Your task to perform on an android device: turn off translation in the chrome app Image 0: 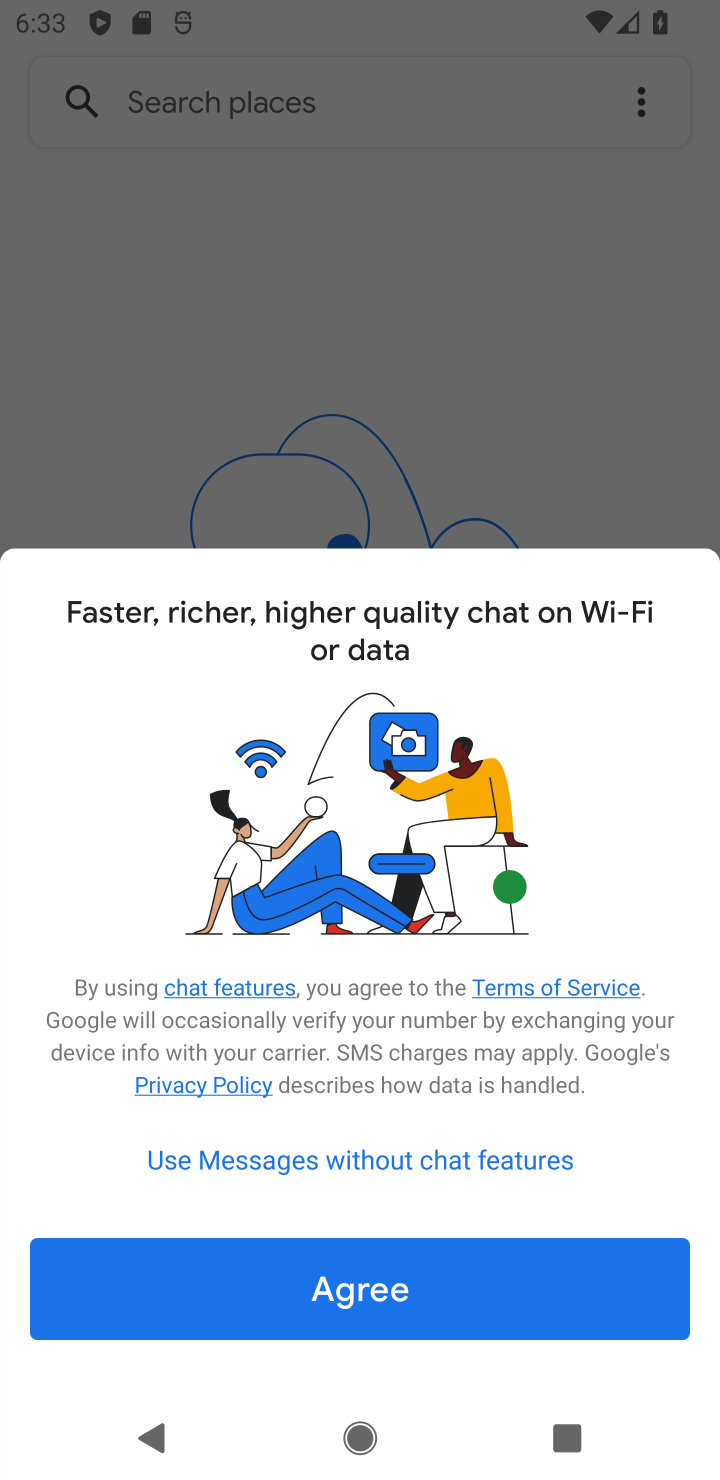
Step 0: press back button
Your task to perform on an android device: turn off translation in the chrome app Image 1: 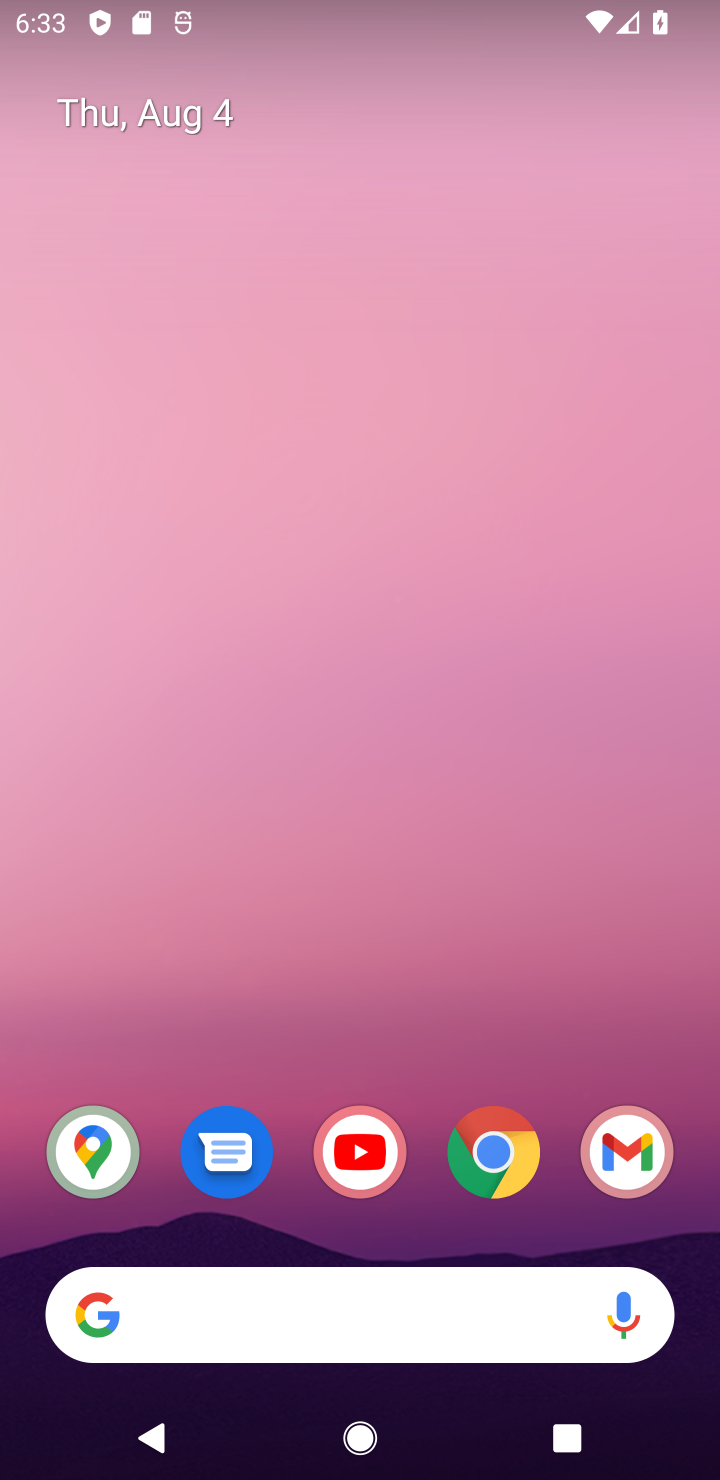
Step 1: click (478, 1138)
Your task to perform on an android device: turn off translation in the chrome app Image 2: 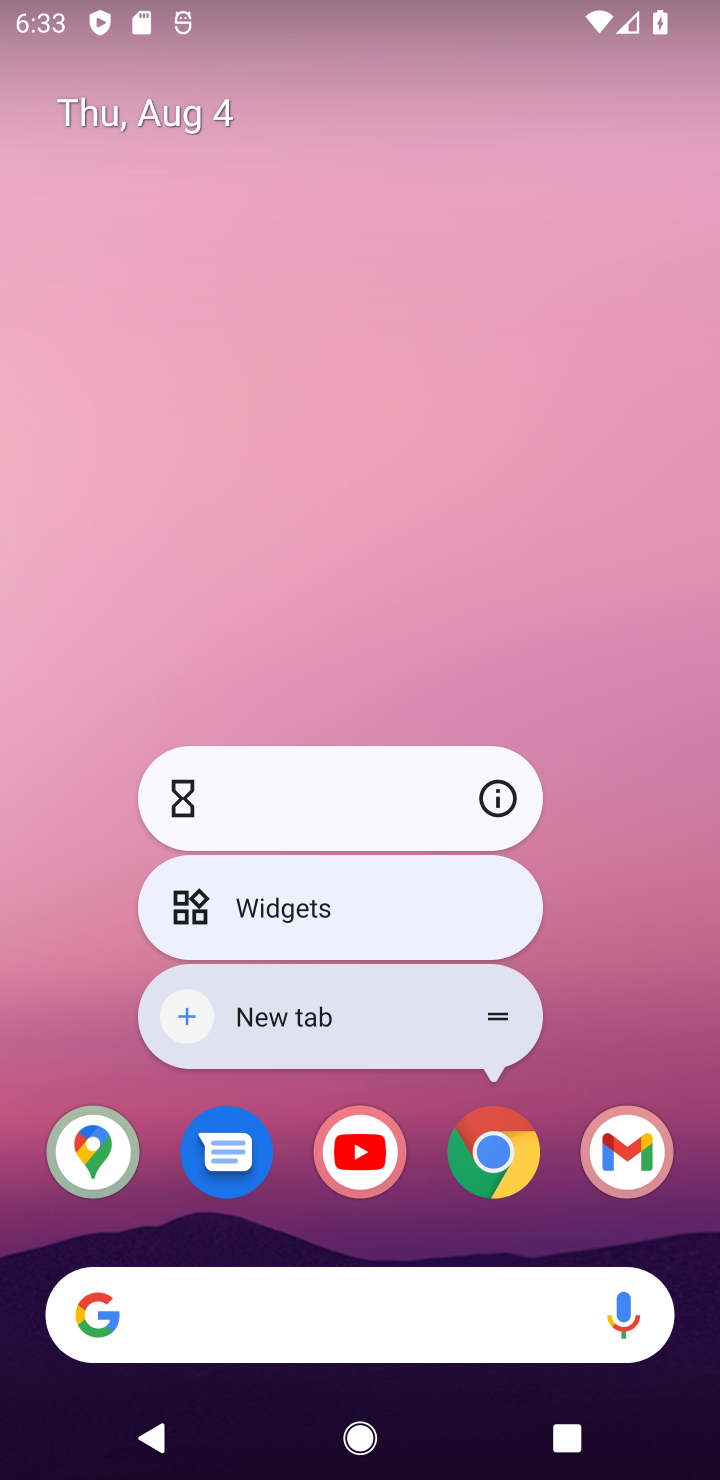
Step 2: click (503, 1142)
Your task to perform on an android device: turn off translation in the chrome app Image 3: 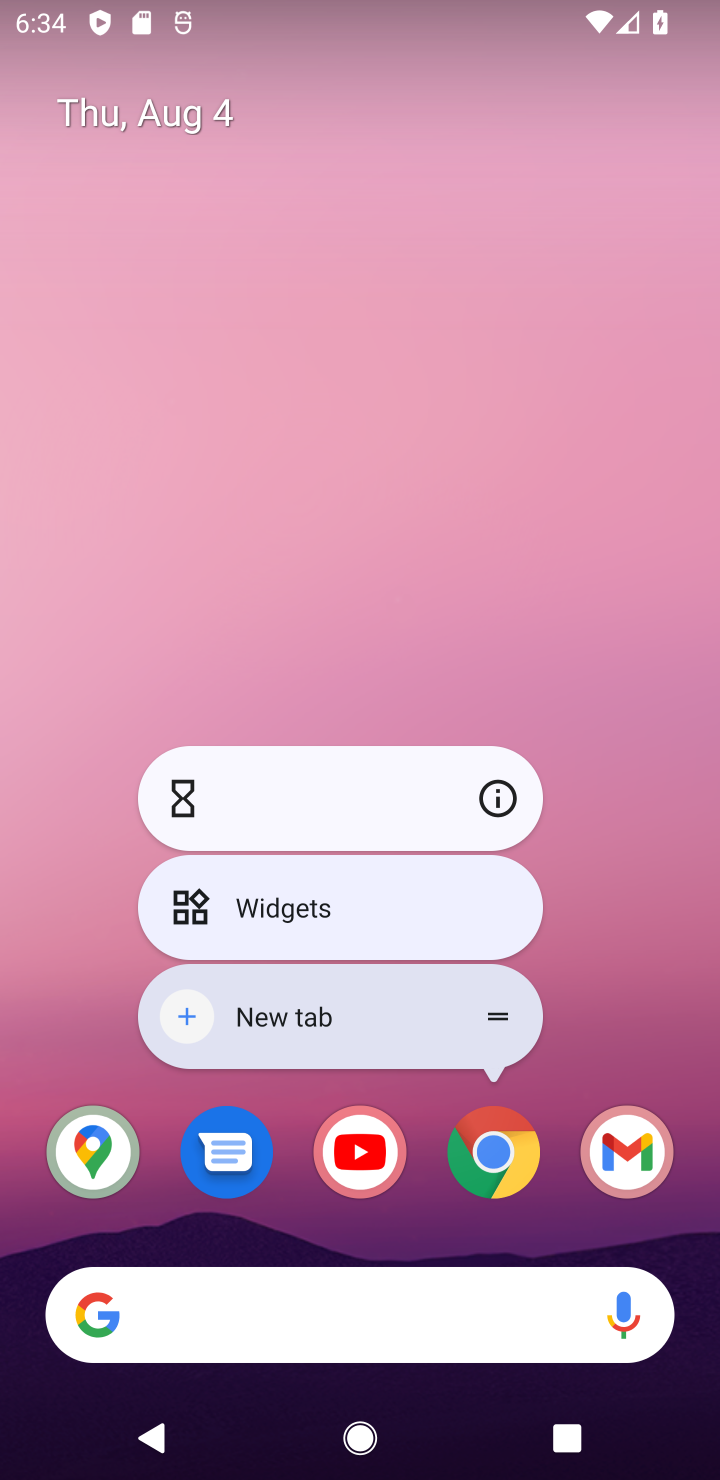
Step 3: click (490, 1158)
Your task to perform on an android device: turn off translation in the chrome app Image 4: 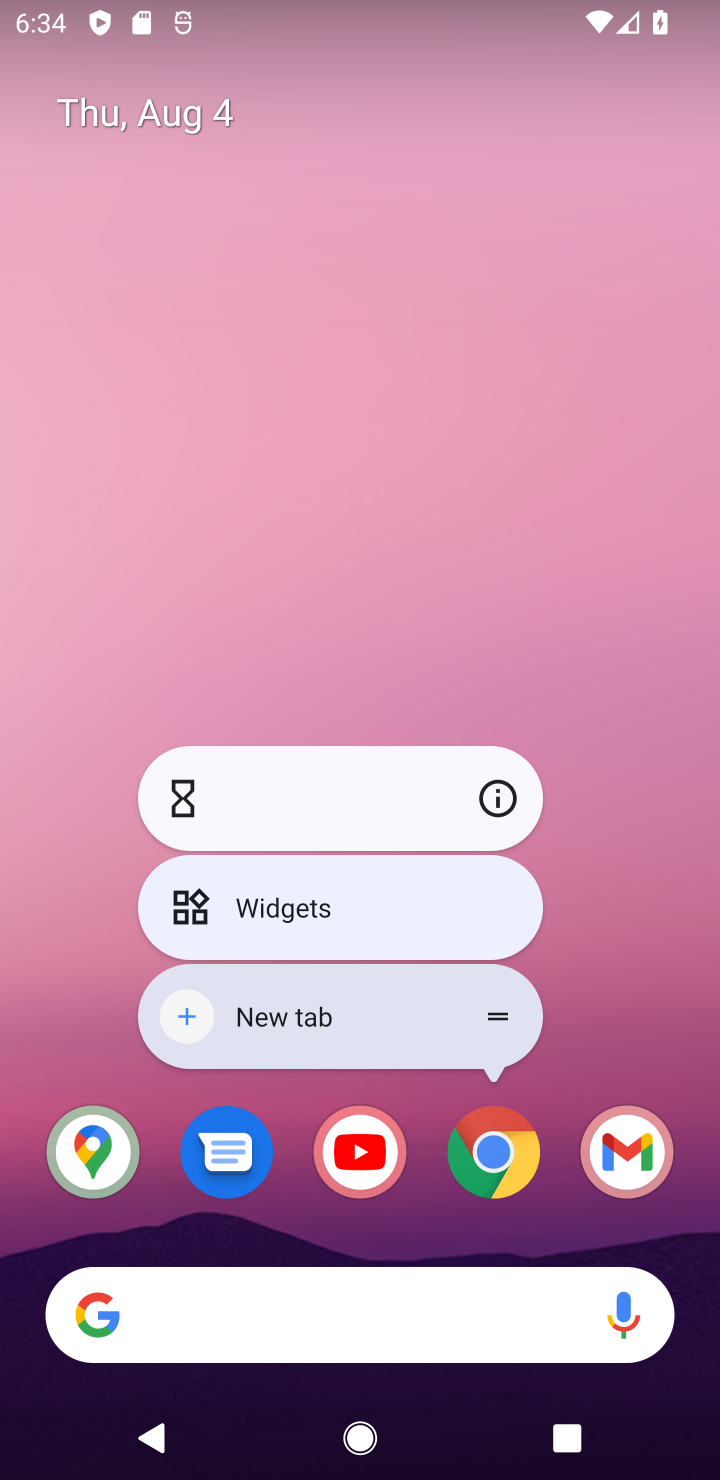
Step 4: click (492, 1149)
Your task to perform on an android device: turn off translation in the chrome app Image 5: 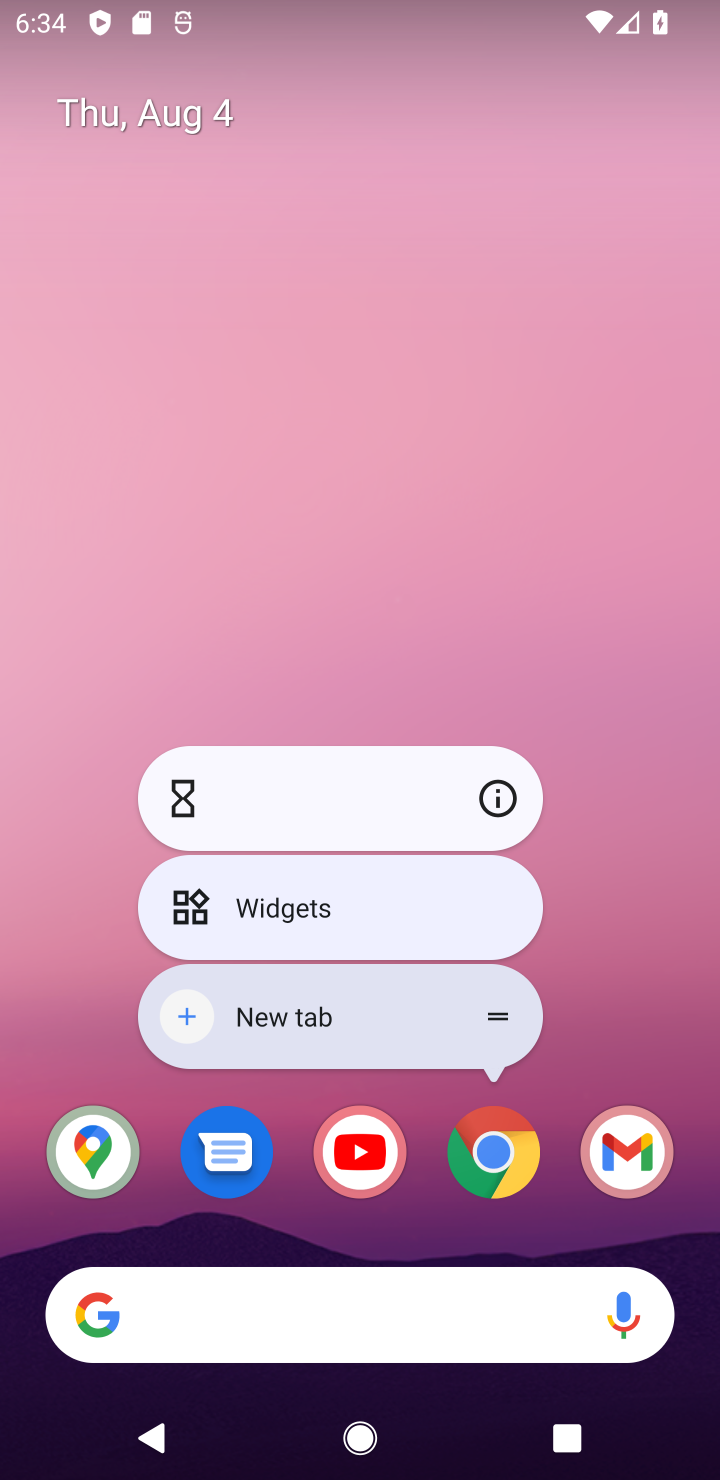
Step 5: click (515, 1156)
Your task to perform on an android device: turn off translation in the chrome app Image 6: 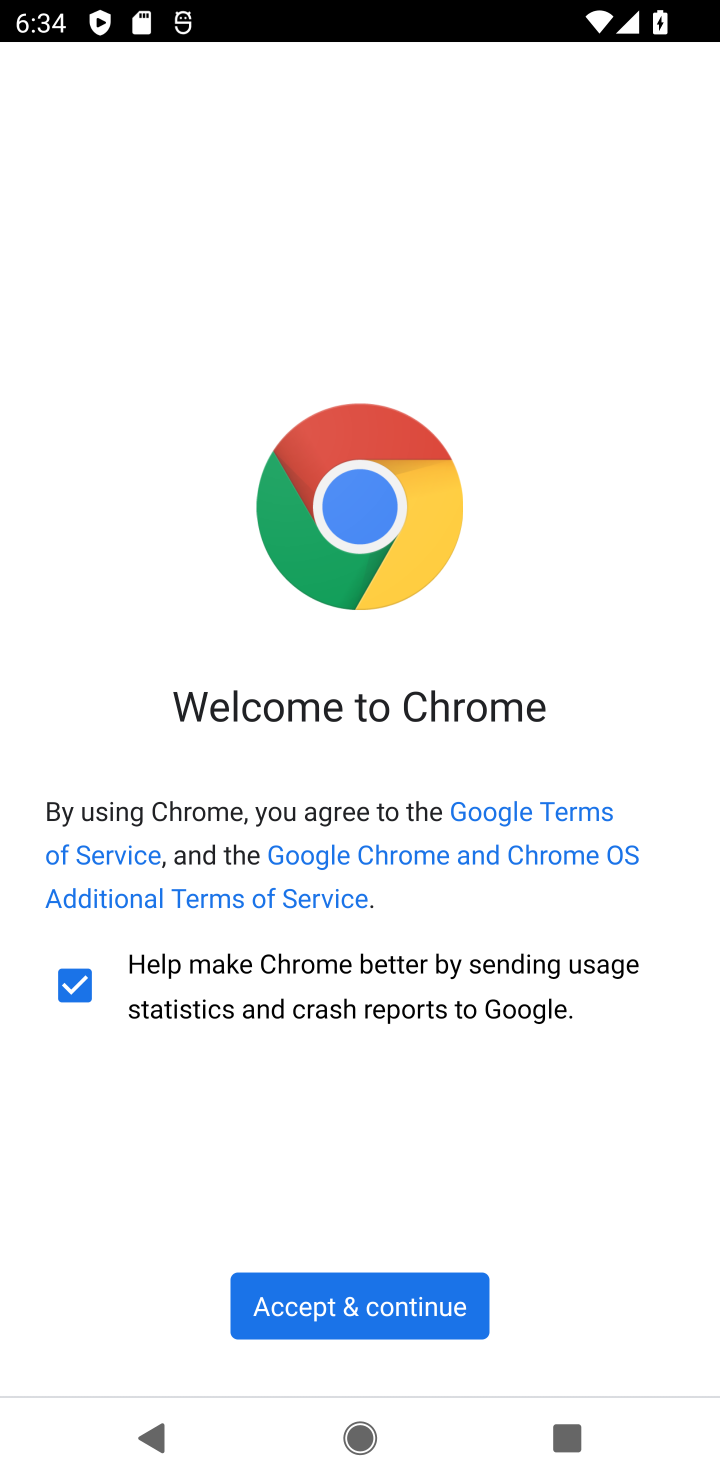
Step 6: click (383, 1291)
Your task to perform on an android device: turn off translation in the chrome app Image 7: 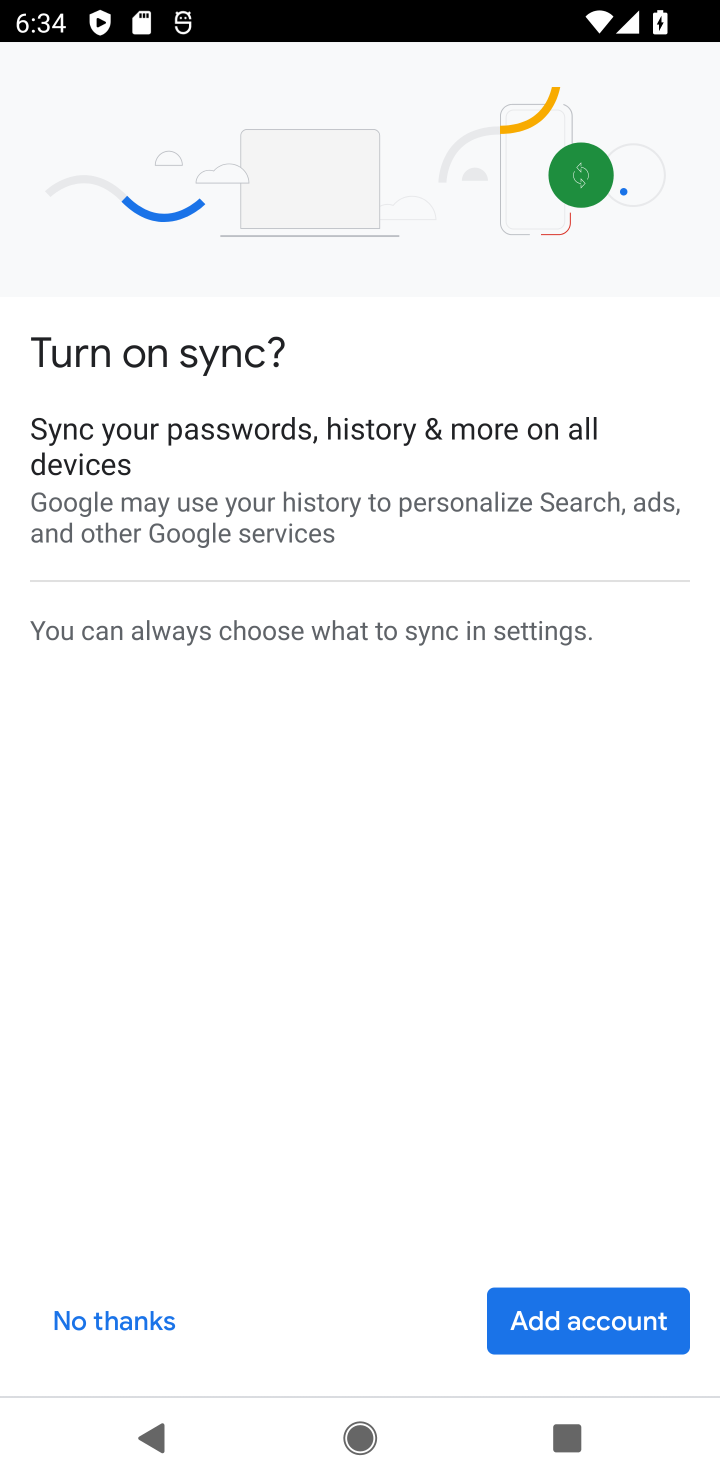
Step 7: click (135, 1323)
Your task to perform on an android device: turn off translation in the chrome app Image 8: 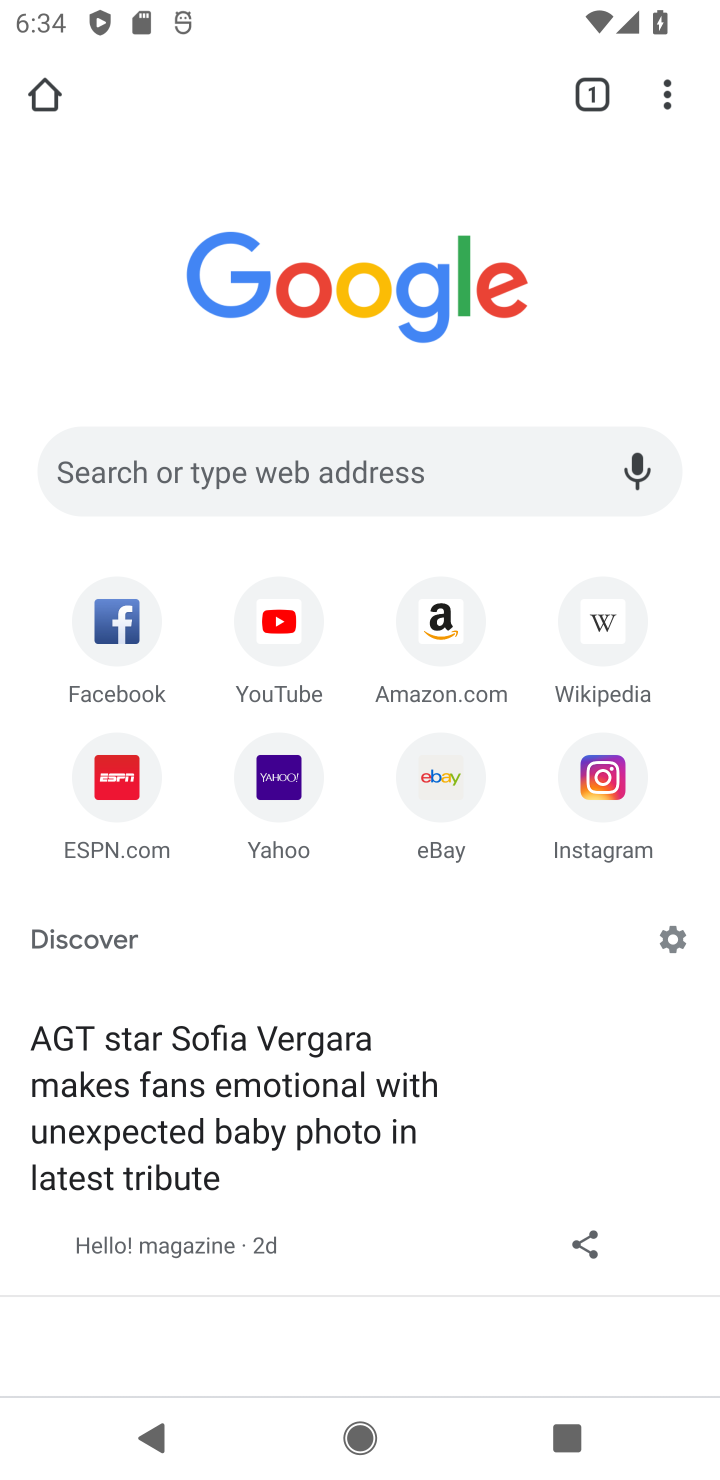
Step 8: drag from (665, 94) to (366, 880)
Your task to perform on an android device: turn off translation in the chrome app Image 9: 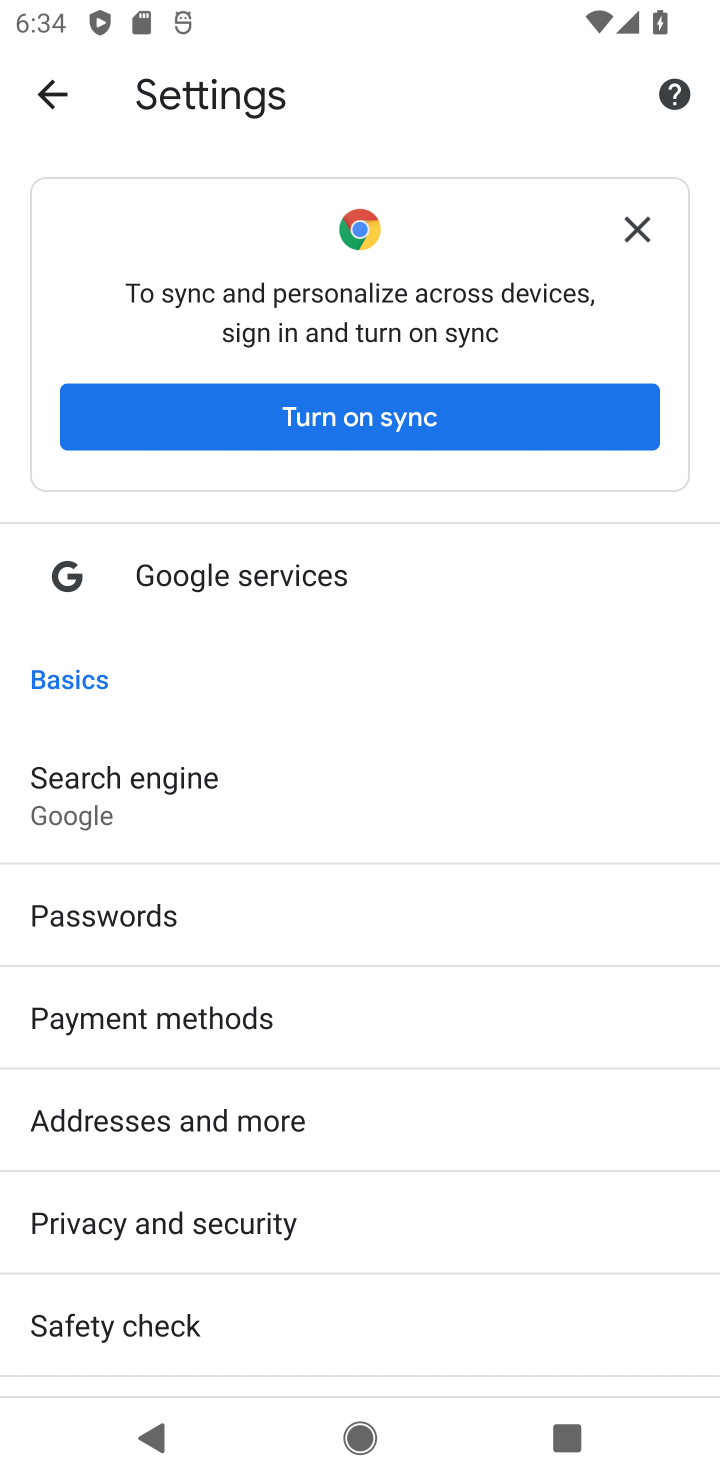
Step 9: drag from (313, 1252) to (452, 195)
Your task to perform on an android device: turn off translation in the chrome app Image 10: 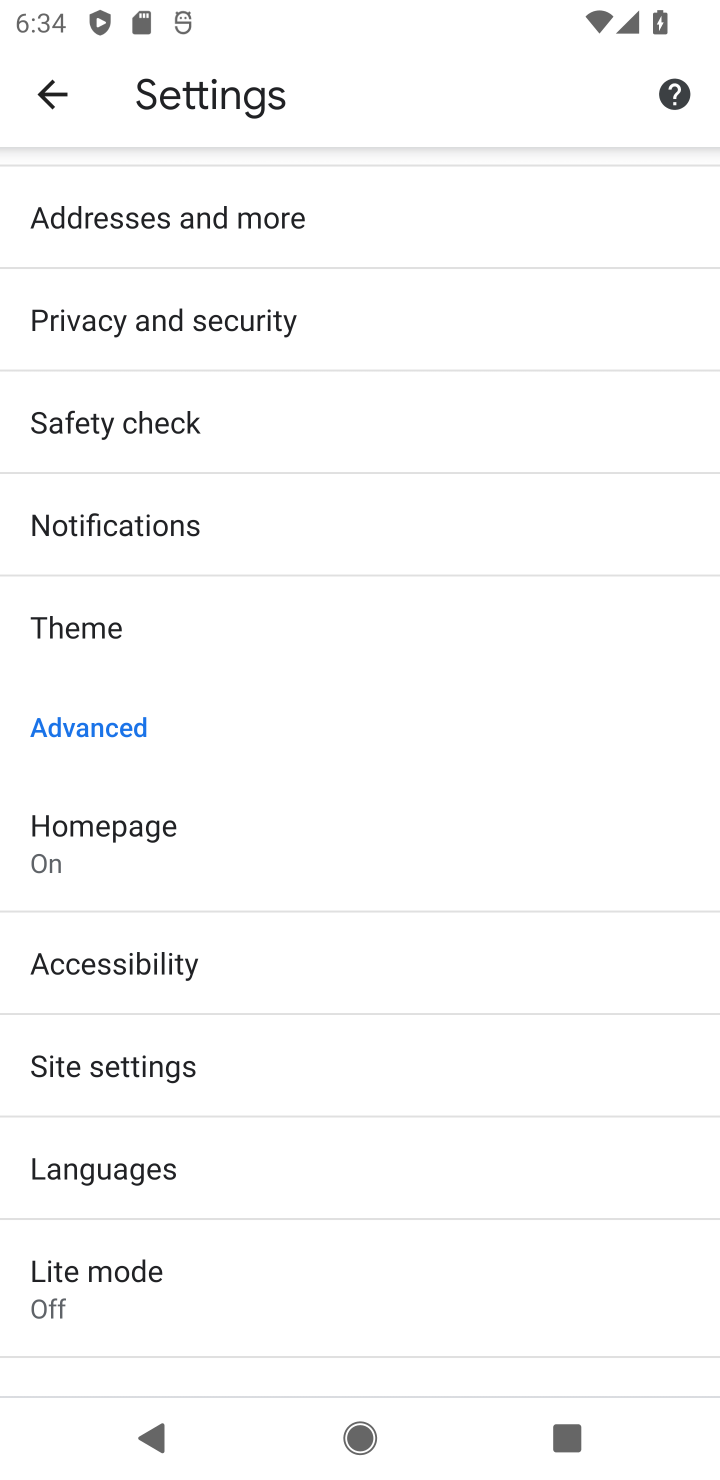
Step 10: click (115, 1177)
Your task to perform on an android device: turn off translation in the chrome app Image 11: 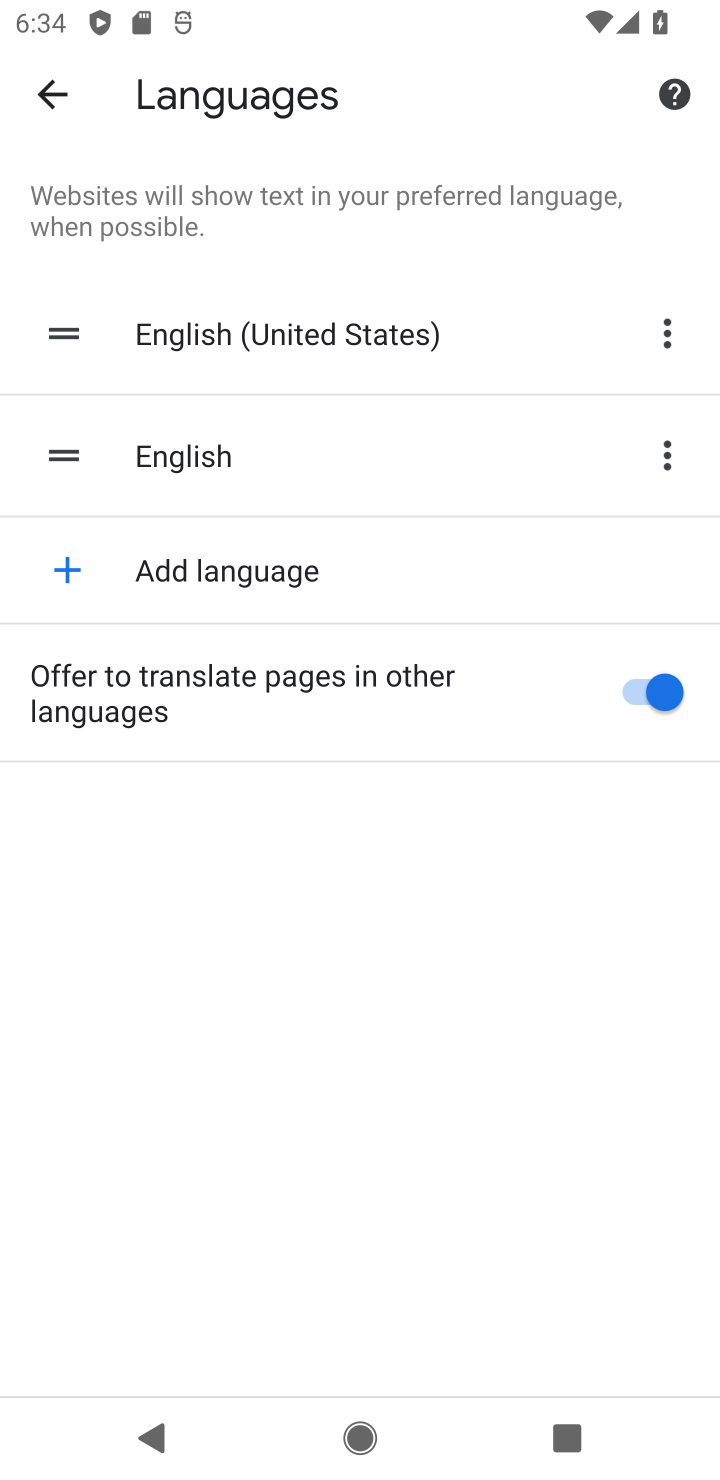
Step 11: click (678, 665)
Your task to perform on an android device: turn off translation in the chrome app Image 12: 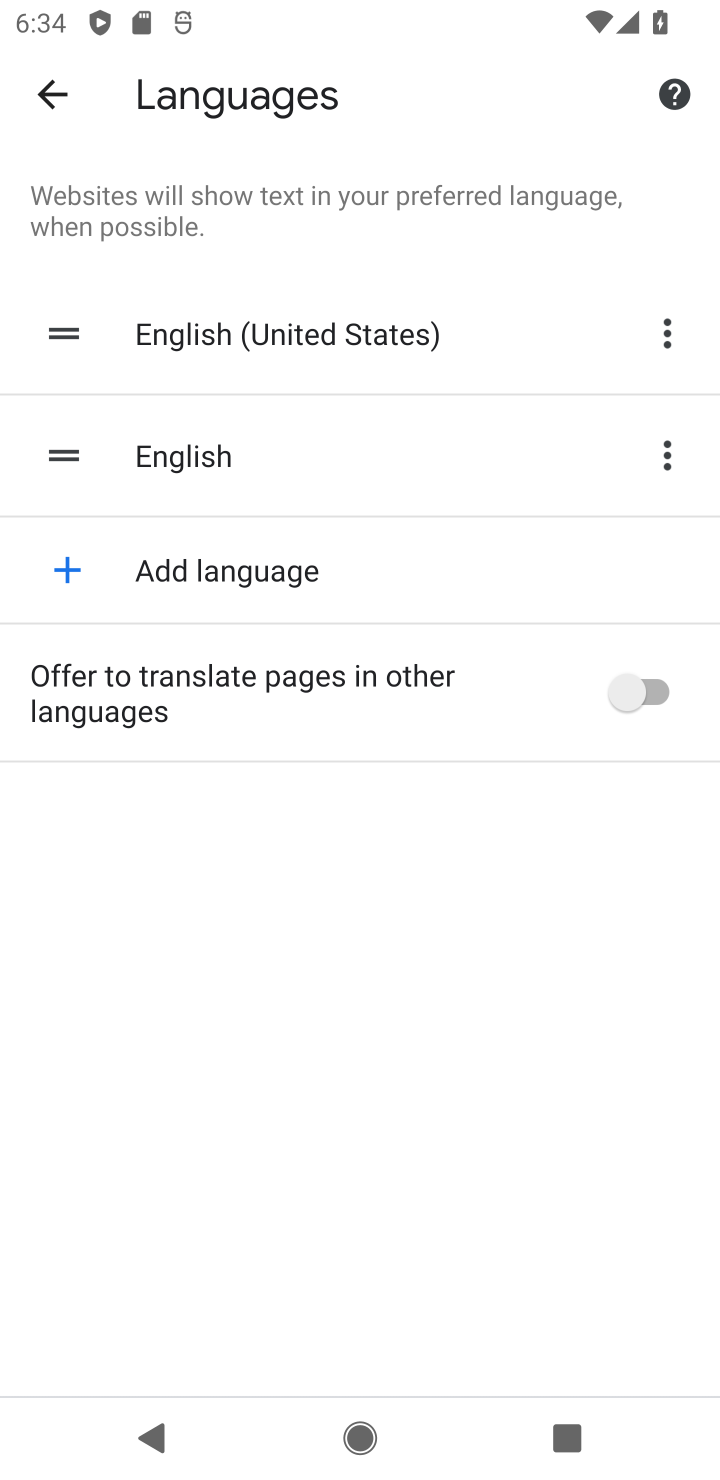
Step 12: task complete